Your task to perform on an android device: What is the recent news? Image 0: 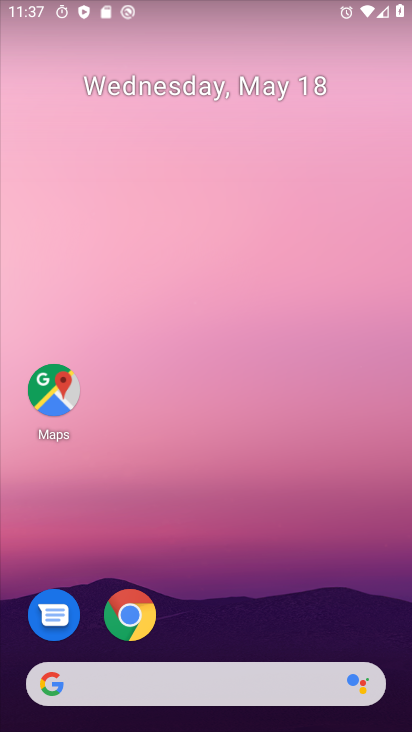
Step 0: click (198, 686)
Your task to perform on an android device: What is the recent news? Image 1: 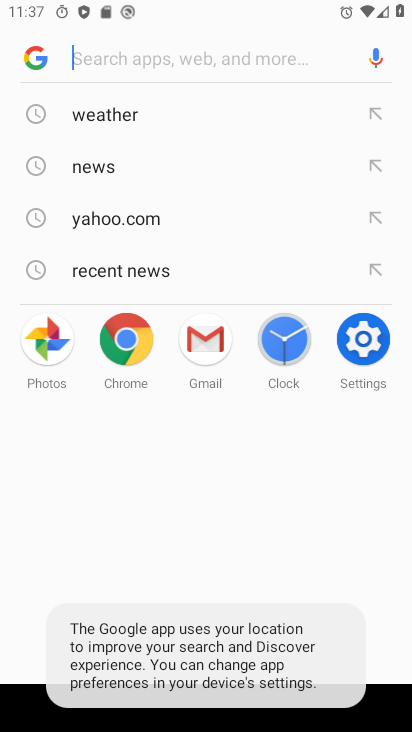
Step 1: click (147, 175)
Your task to perform on an android device: What is the recent news? Image 2: 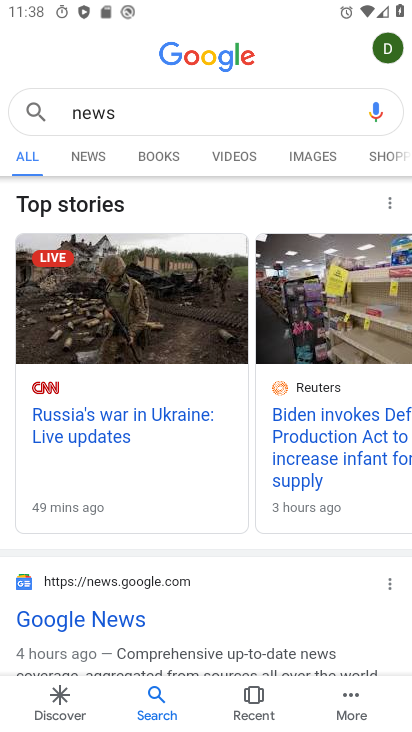
Step 2: task complete